Your task to perform on an android device: Do I have any events this weekend? Image 0: 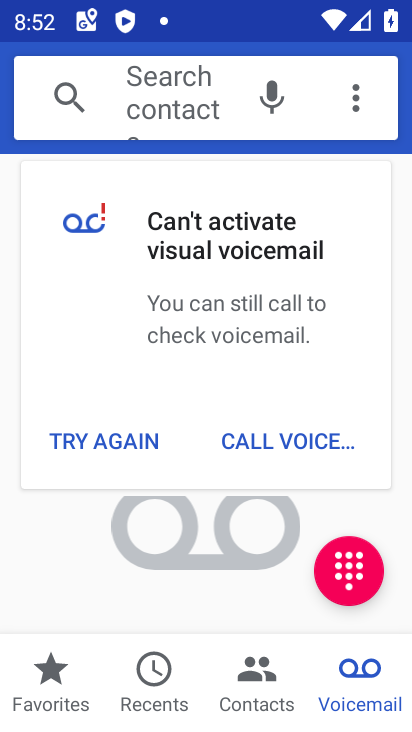
Step 0: press home button
Your task to perform on an android device: Do I have any events this weekend? Image 1: 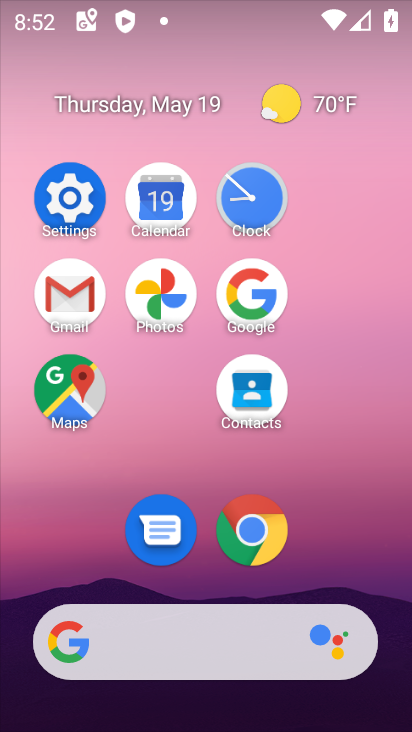
Step 1: click (169, 215)
Your task to perform on an android device: Do I have any events this weekend? Image 2: 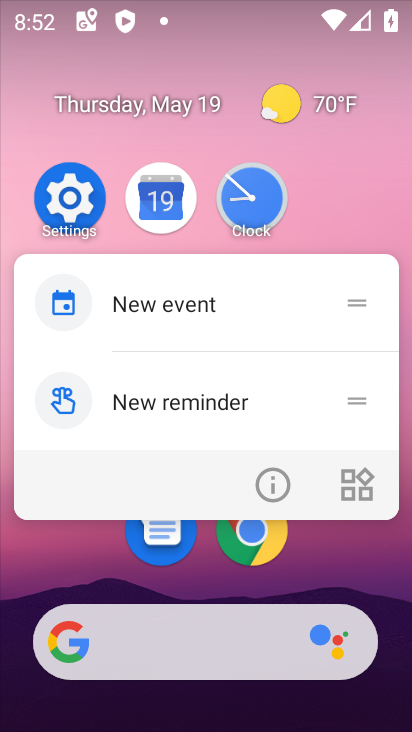
Step 2: click (163, 203)
Your task to perform on an android device: Do I have any events this weekend? Image 3: 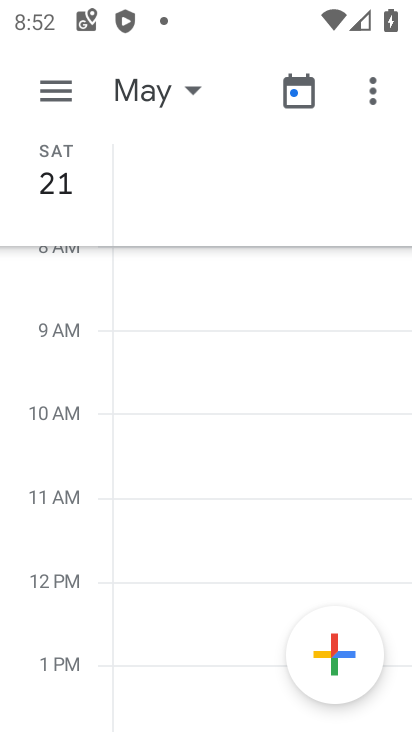
Step 3: click (57, 107)
Your task to perform on an android device: Do I have any events this weekend? Image 4: 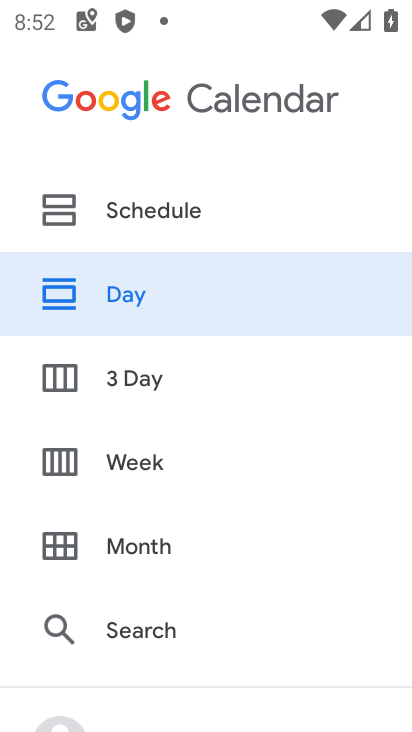
Step 4: click (139, 471)
Your task to perform on an android device: Do I have any events this weekend? Image 5: 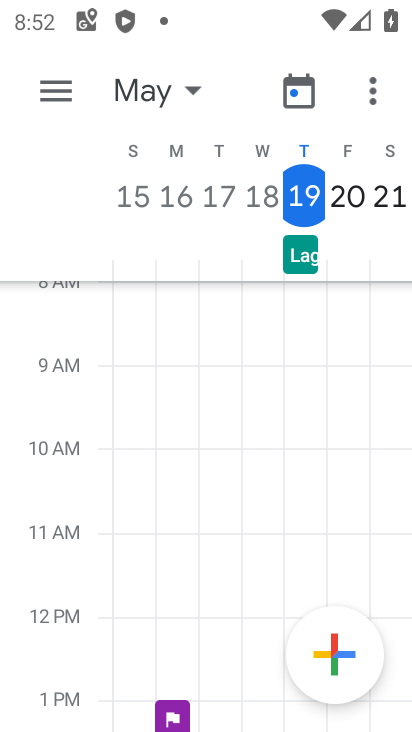
Step 5: task complete